Your task to perform on an android device: add a contact Image 0: 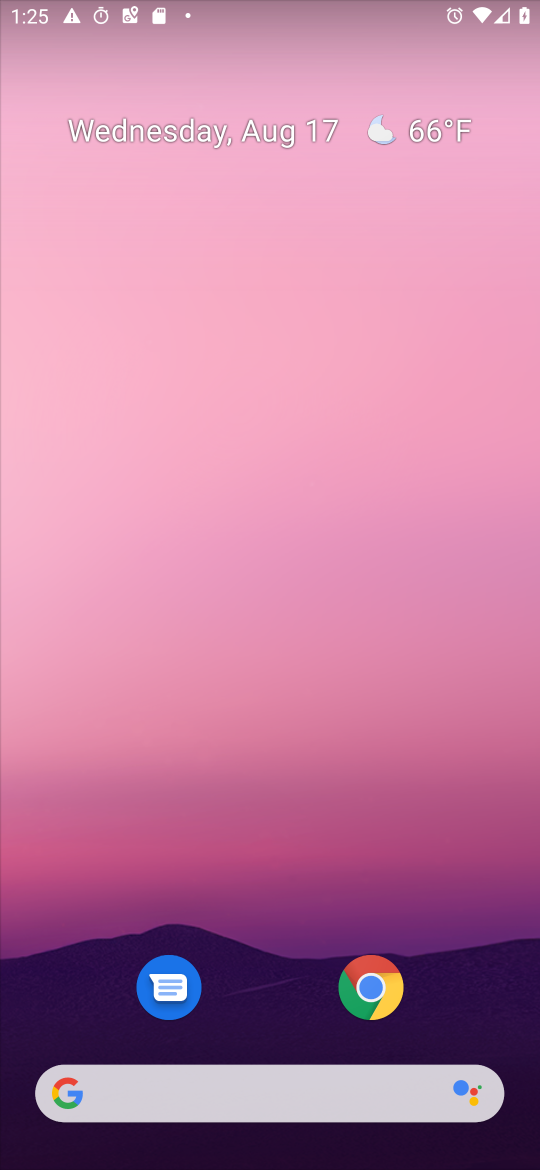
Step 0: drag from (20, 1123) to (259, 398)
Your task to perform on an android device: add a contact Image 1: 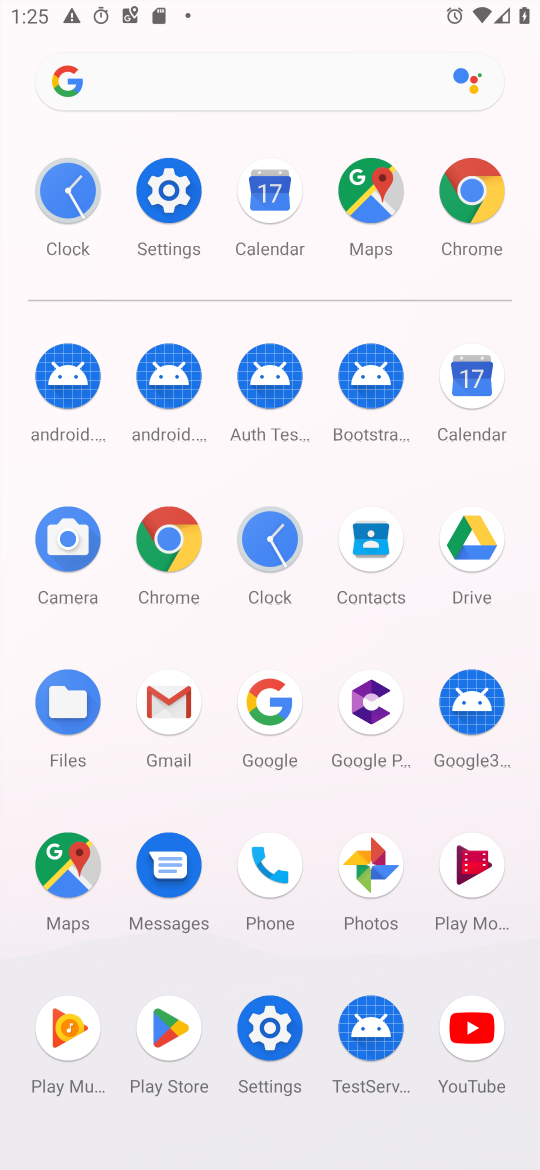
Step 1: click (271, 891)
Your task to perform on an android device: add a contact Image 2: 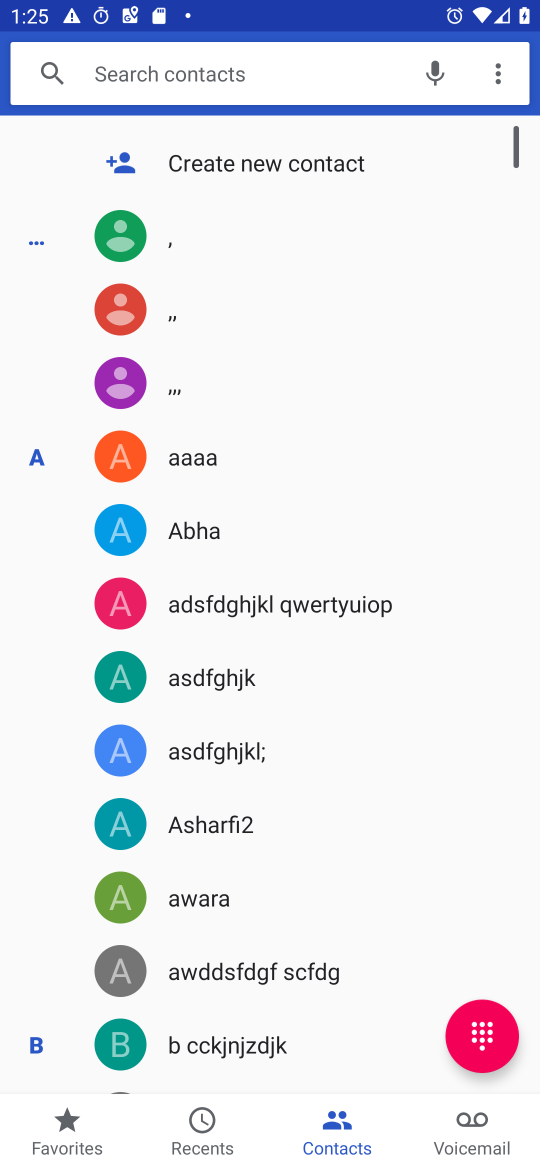
Step 2: click (175, 164)
Your task to perform on an android device: add a contact Image 3: 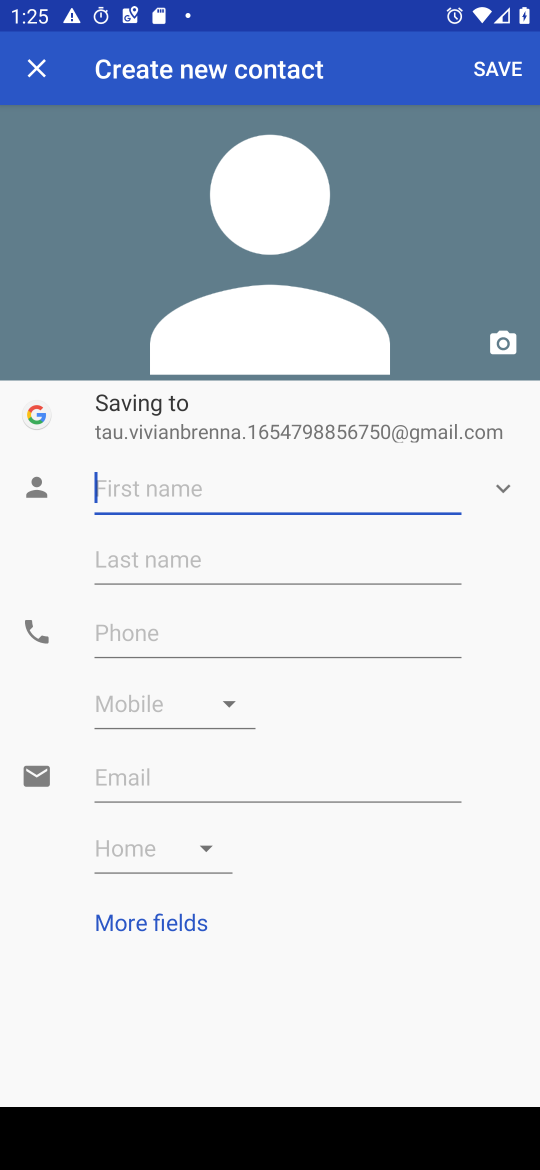
Step 3: type "dfdh"
Your task to perform on an android device: add a contact Image 4: 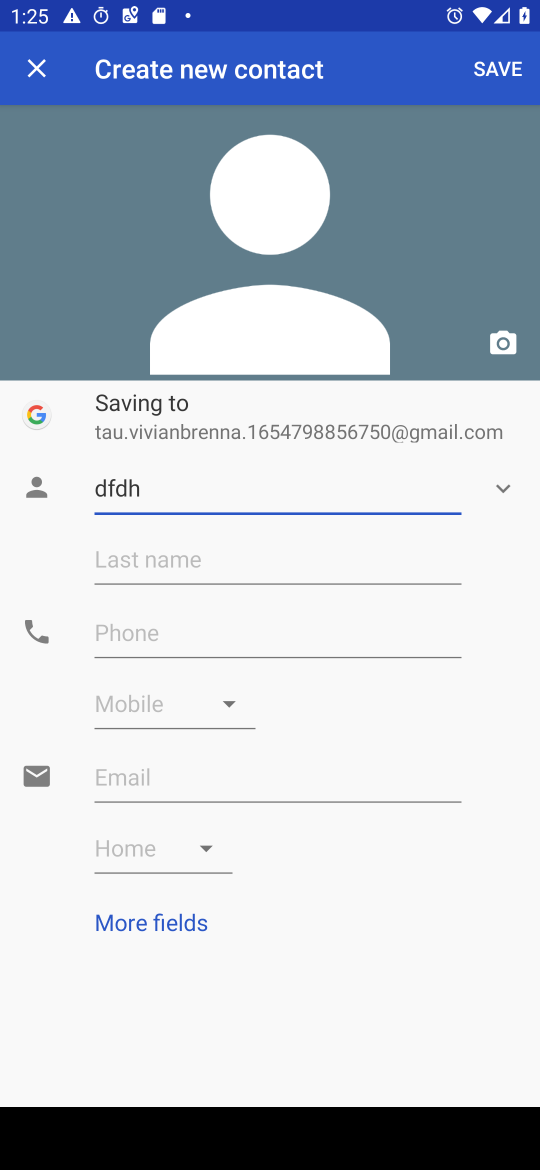
Step 4: click (489, 82)
Your task to perform on an android device: add a contact Image 5: 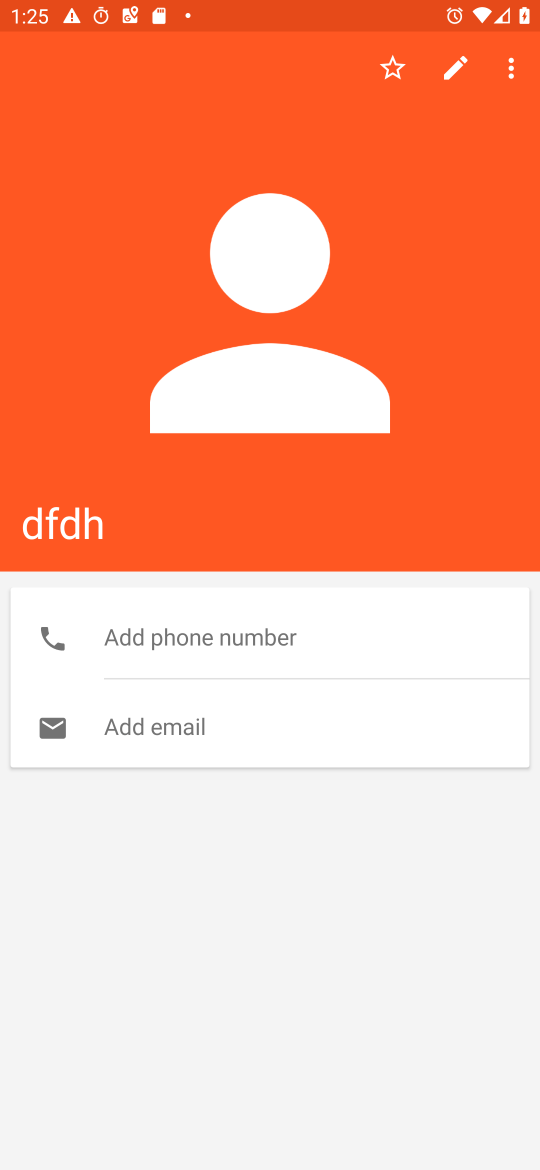
Step 5: task complete